Your task to perform on an android device: Go to accessibility settings Image 0: 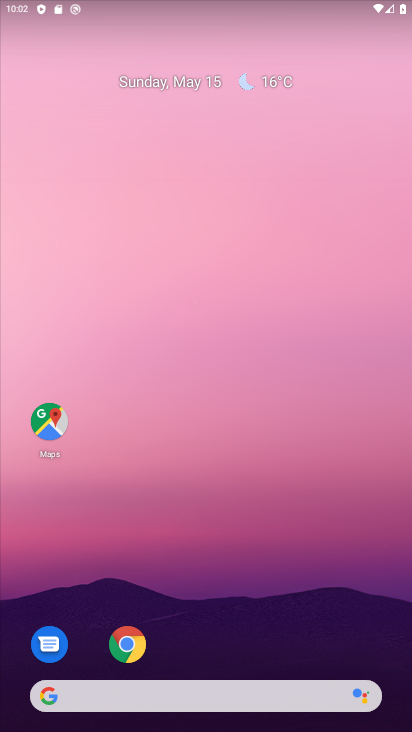
Step 0: drag from (273, 646) to (302, 22)
Your task to perform on an android device: Go to accessibility settings Image 1: 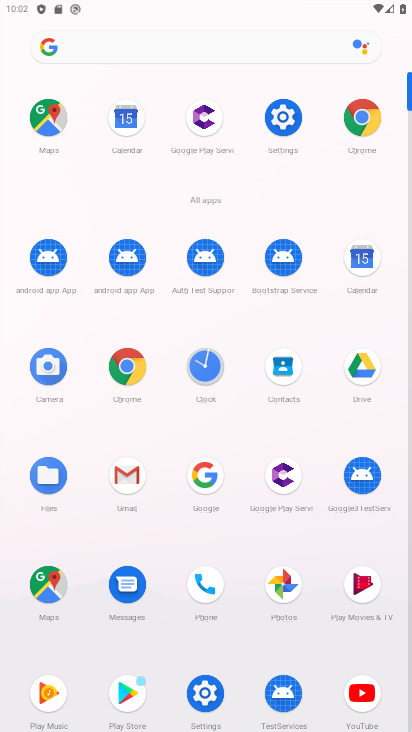
Step 1: click (282, 125)
Your task to perform on an android device: Go to accessibility settings Image 2: 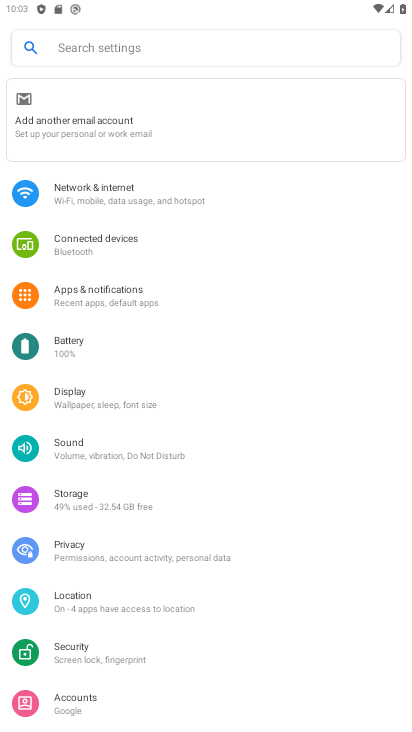
Step 2: drag from (164, 656) to (176, 78)
Your task to perform on an android device: Go to accessibility settings Image 3: 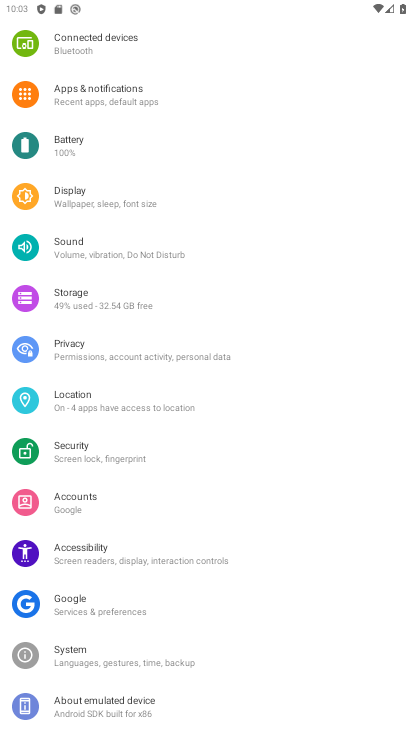
Step 3: click (115, 562)
Your task to perform on an android device: Go to accessibility settings Image 4: 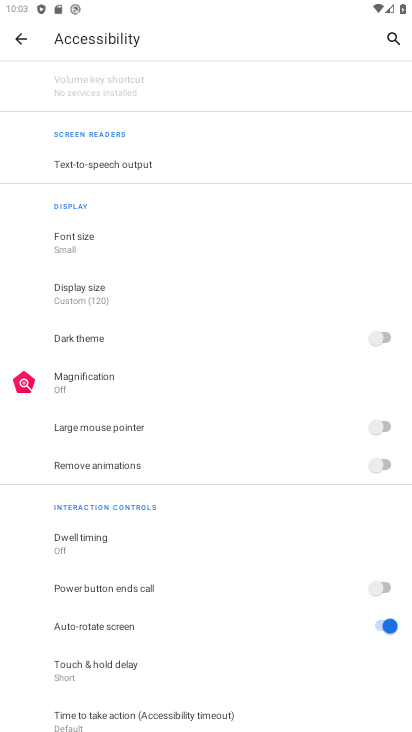
Step 4: task complete